Your task to perform on an android device: toggle sleep mode Image 0: 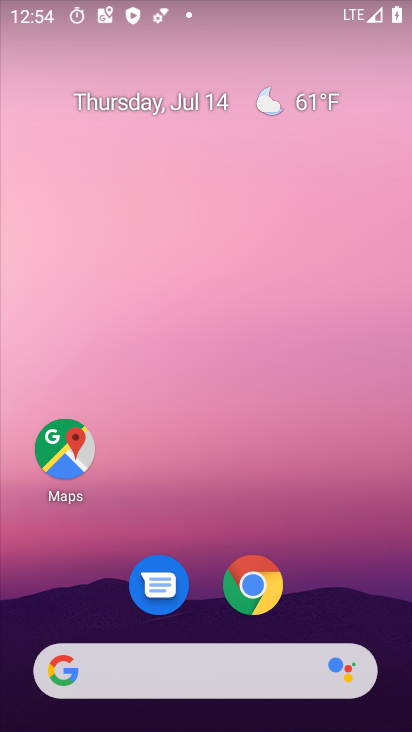
Step 0: drag from (311, 603) to (296, 54)
Your task to perform on an android device: toggle sleep mode Image 1: 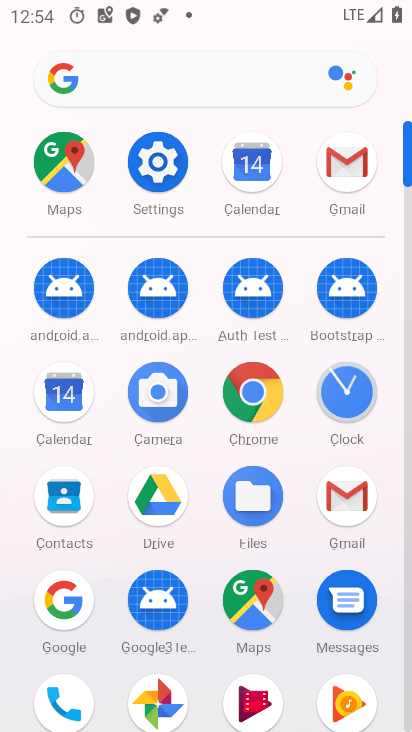
Step 1: click (170, 162)
Your task to perform on an android device: toggle sleep mode Image 2: 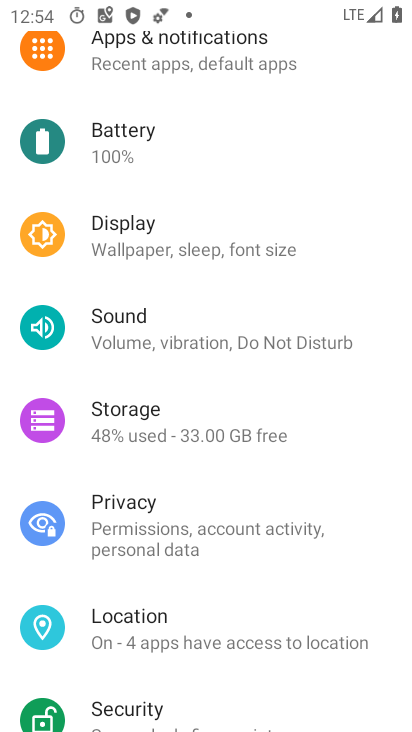
Step 2: click (215, 238)
Your task to perform on an android device: toggle sleep mode Image 3: 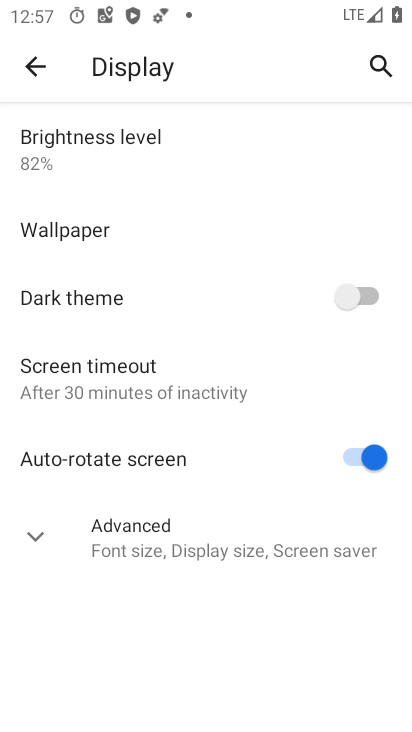
Step 3: task complete